Your task to perform on an android device: turn off sleep mode Image 0: 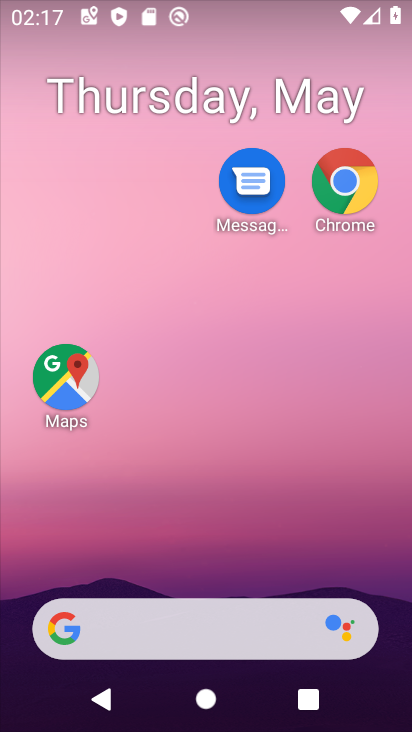
Step 0: drag from (353, 609) to (339, 9)
Your task to perform on an android device: turn off sleep mode Image 1: 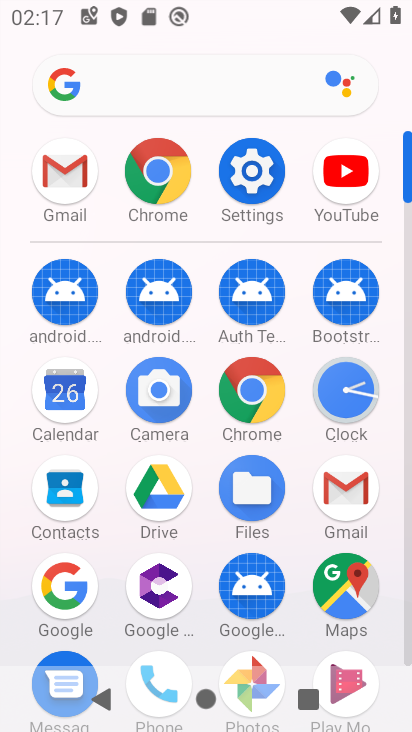
Step 1: click (249, 143)
Your task to perform on an android device: turn off sleep mode Image 2: 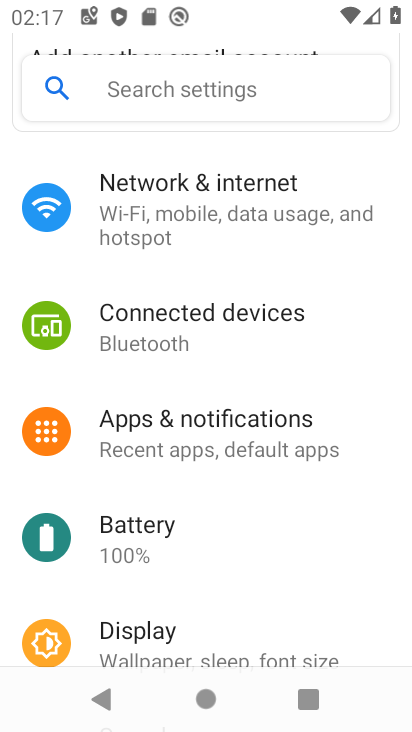
Step 2: drag from (260, 568) to (314, 140)
Your task to perform on an android device: turn off sleep mode Image 3: 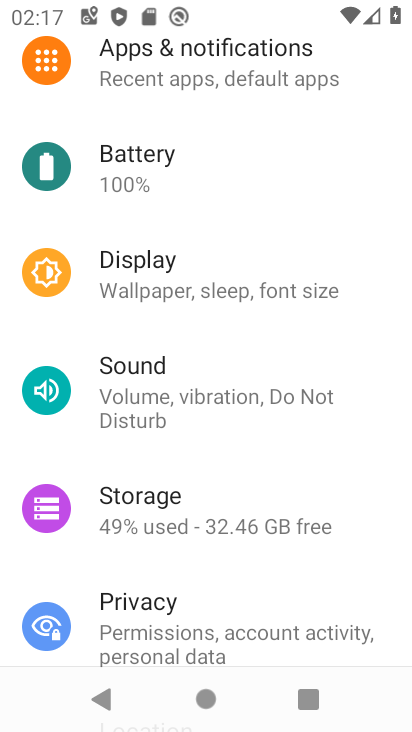
Step 3: click (250, 277)
Your task to perform on an android device: turn off sleep mode Image 4: 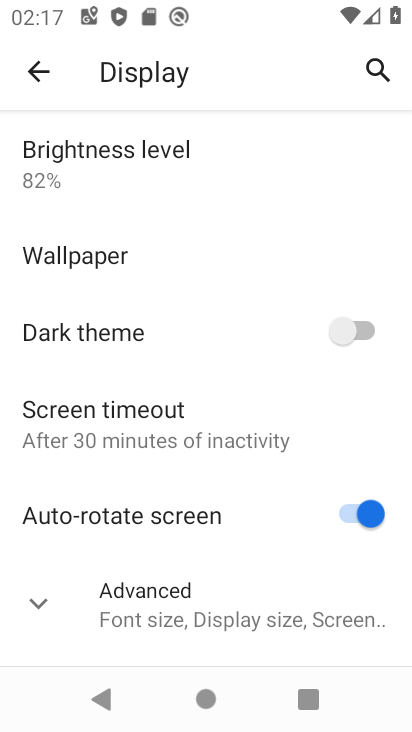
Step 4: task complete